Your task to perform on an android device: turn off improve location accuracy Image 0: 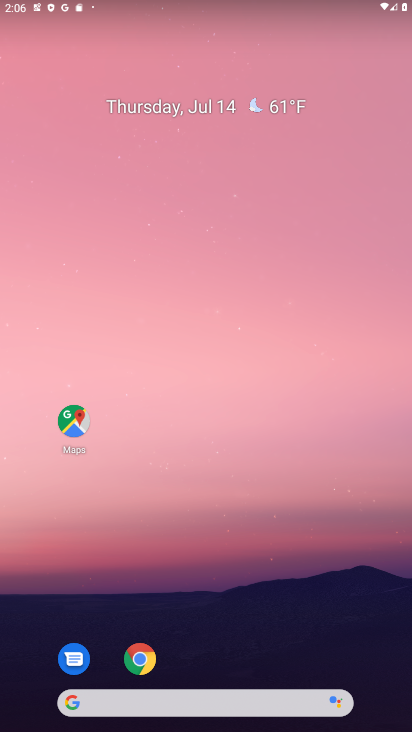
Step 0: drag from (202, 673) to (142, 95)
Your task to perform on an android device: turn off improve location accuracy Image 1: 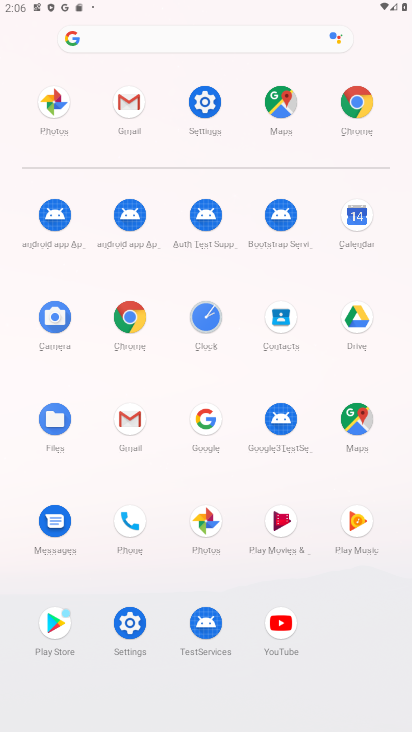
Step 1: click (133, 618)
Your task to perform on an android device: turn off improve location accuracy Image 2: 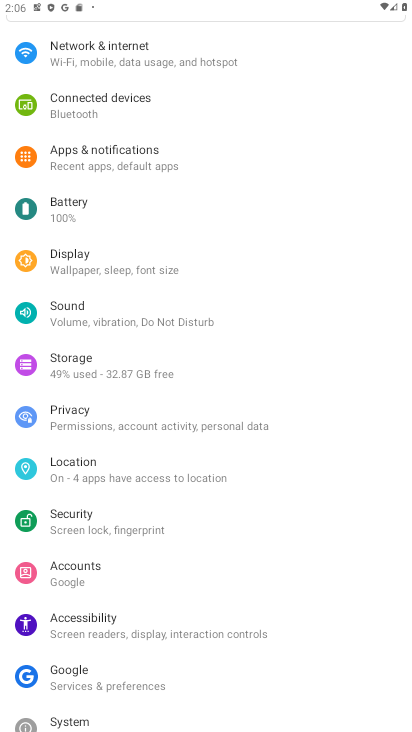
Step 2: click (90, 469)
Your task to perform on an android device: turn off improve location accuracy Image 3: 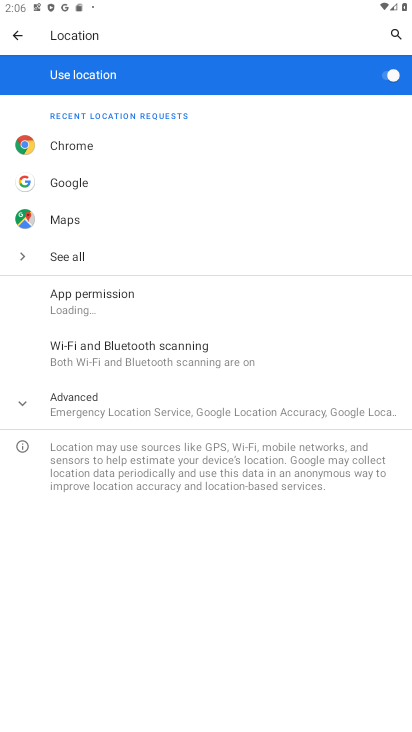
Step 3: click (115, 414)
Your task to perform on an android device: turn off improve location accuracy Image 4: 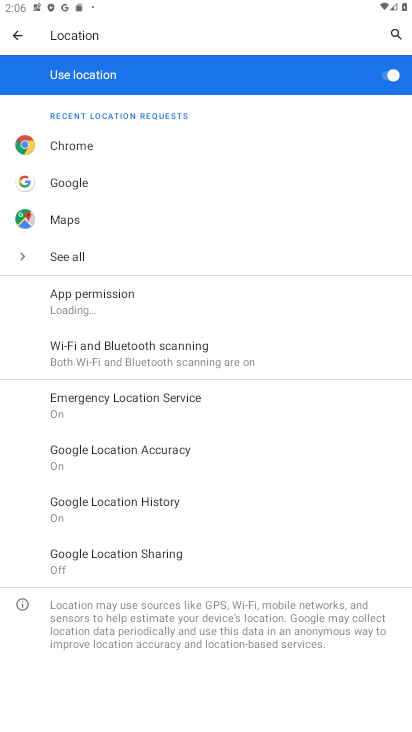
Step 4: click (132, 450)
Your task to perform on an android device: turn off improve location accuracy Image 5: 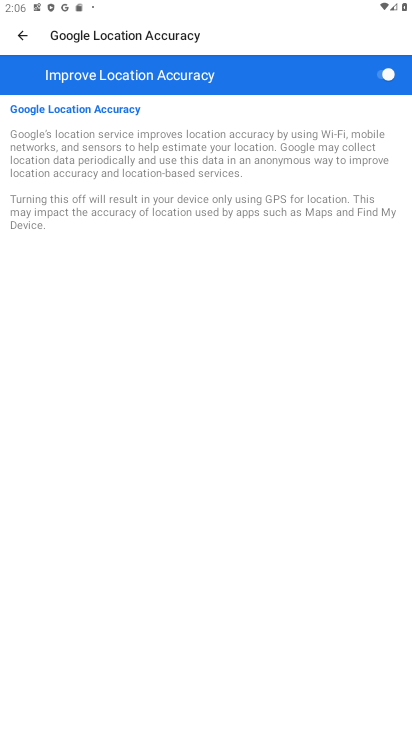
Step 5: click (373, 99)
Your task to perform on an android device: turn off improve location accuracy Image 6: 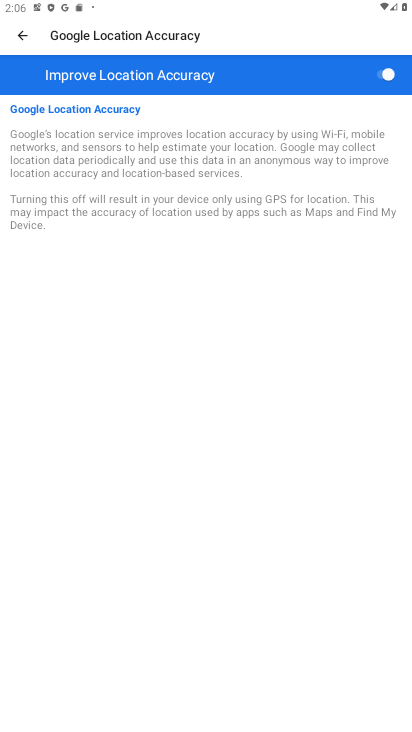
Step 6: click (377, 85)
Your task to perform on an android device: turn off improve location accuracy Image 7: 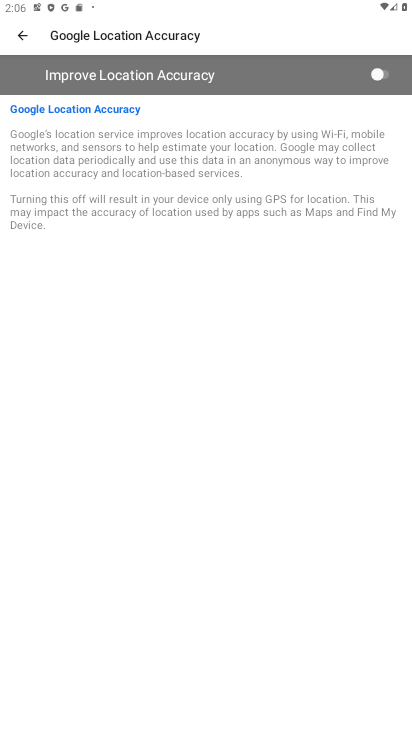
Step 7: task complete